Your task to perform on an android device: Find coffee shops on Maps Image 0: 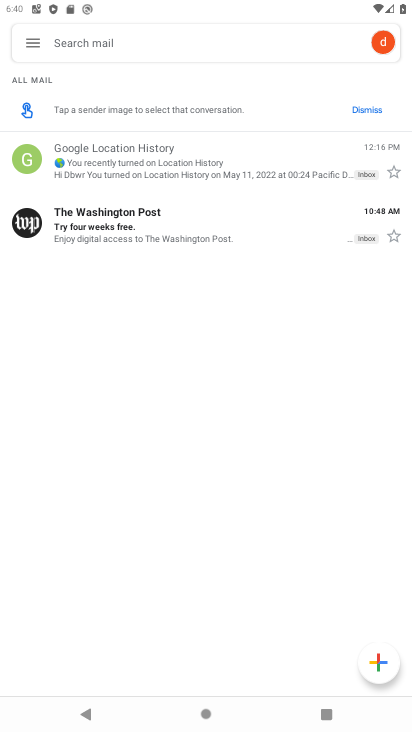
Step 0: press home button
Your task to perform on an android device: Find coffee shops on Maps Image 1: 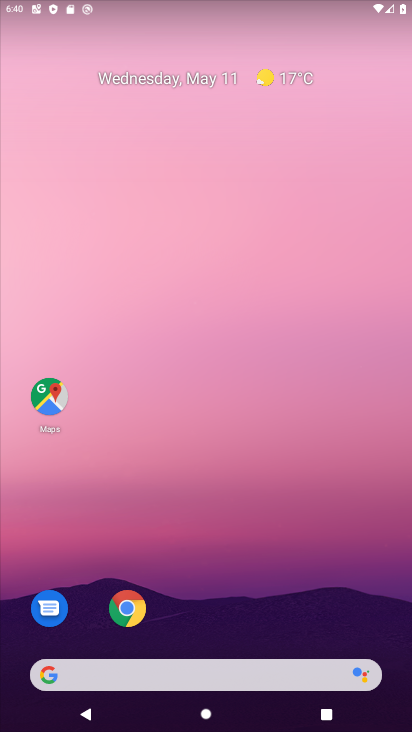
Step 1: click (38, 402)
Your task to perform on an android device: Find coffee shops on Maps Image 2: 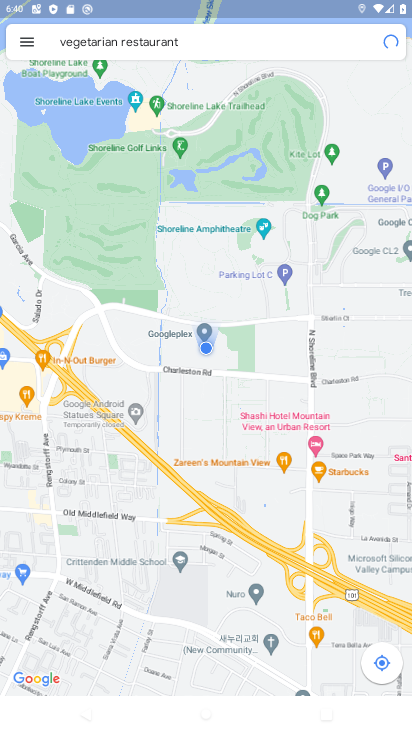
Step 2: click (244, 45)
Your task to perform on an android device: Find coffee shops on Maps Image 3: 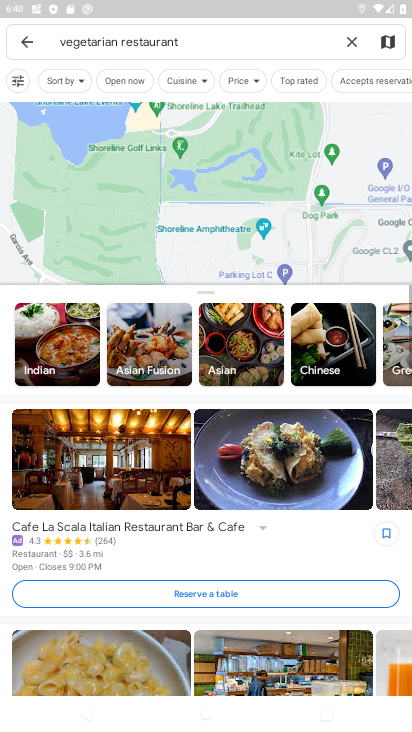
Step 3: click (346, 43)
Your task to perform on an android device: Find coffee shops on Maps Image 4: 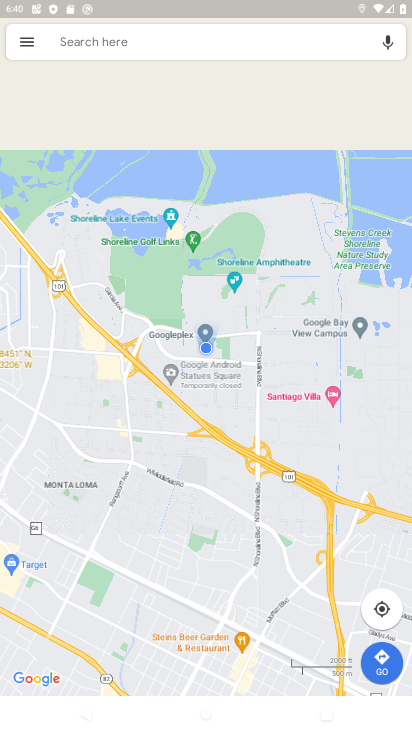
Step 4: click (269, 43)
Your task to perform on an android device: Find coffee shops on Maps Image 5: 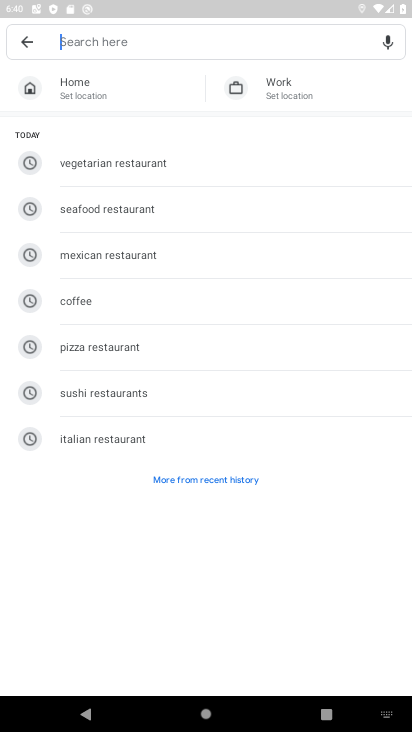
Step 5: click (110, 293)
Your task to perform on an android device: Find coffee shops on Maps Image 6: 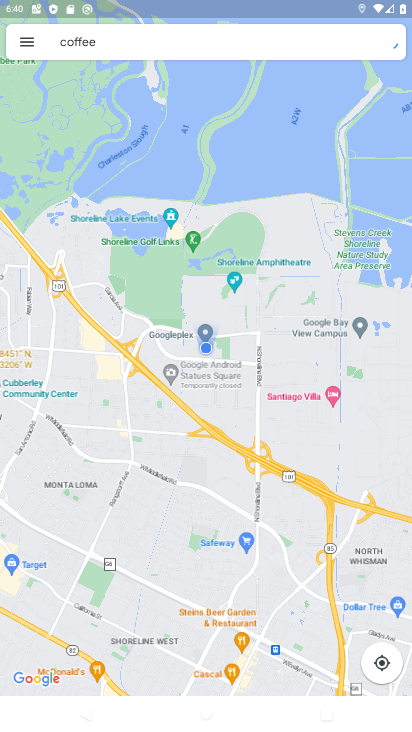
Step 6: task complete